Your task to perform on an android device: open app "Facebook Lite" (install if not already installed) Image 0: 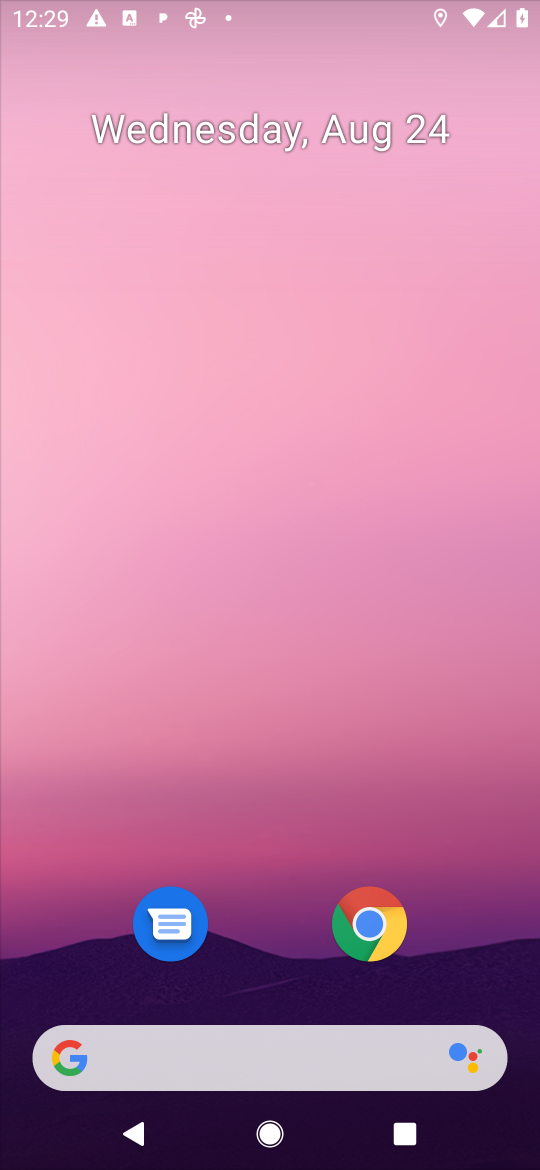
Step 0: drag from (447, 228) to (444, 84)
Your task to perform on an android device: open app "Facebook Lite" (install if not already installed) Image 1: 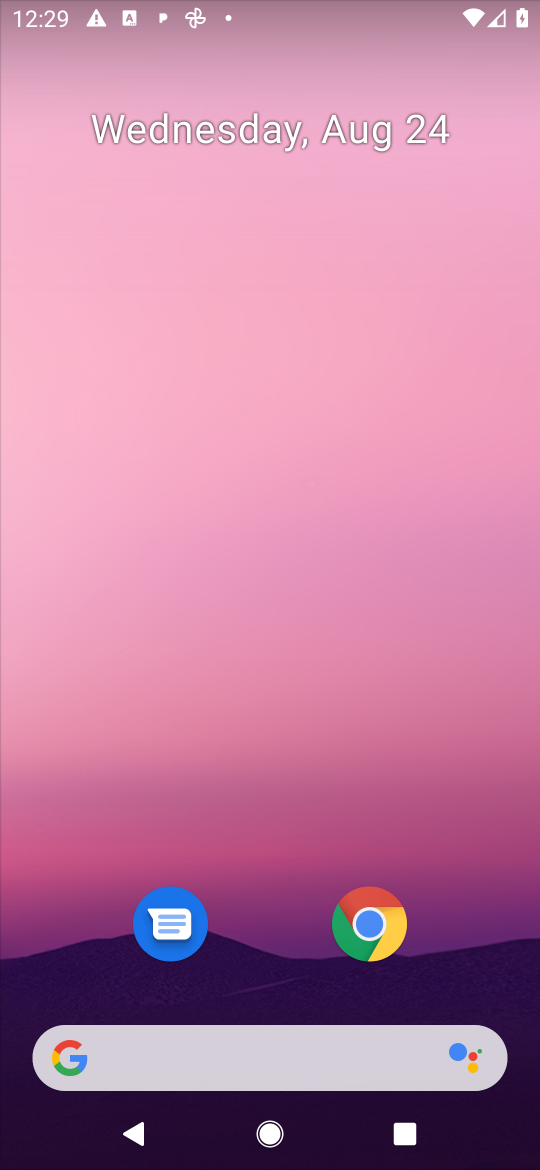
Step 1: drag from (467, 915) to (479, 100)
Your task to perform on an android device: open app "Facebook Lite" (install if not already installed) Image 2: 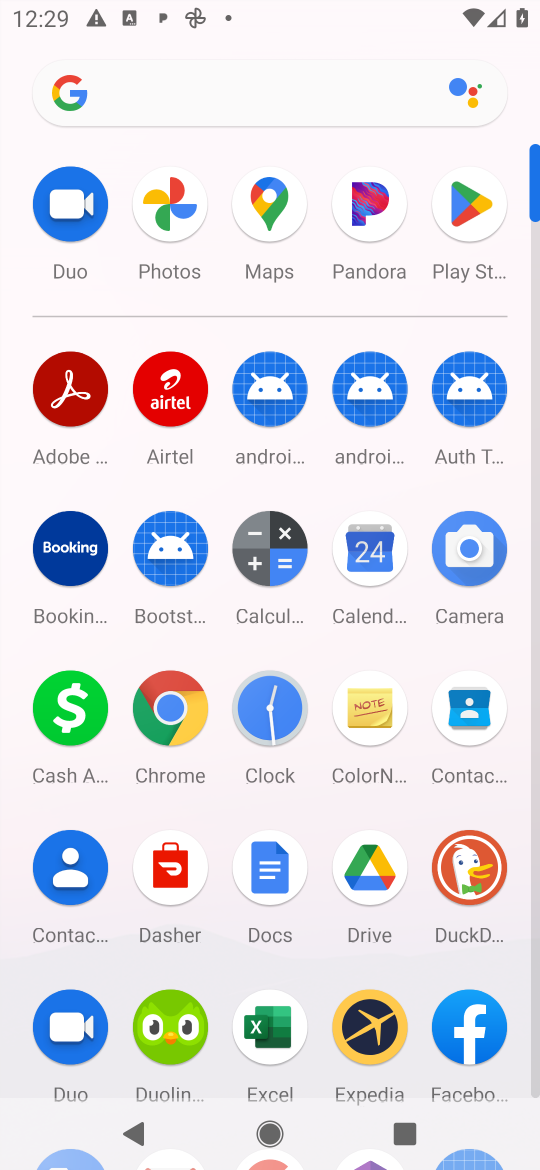
Step 2: click (468, 212)
Your task to perform on an android device: open app "Facebook Lite" (install if not already installed) Image 3: 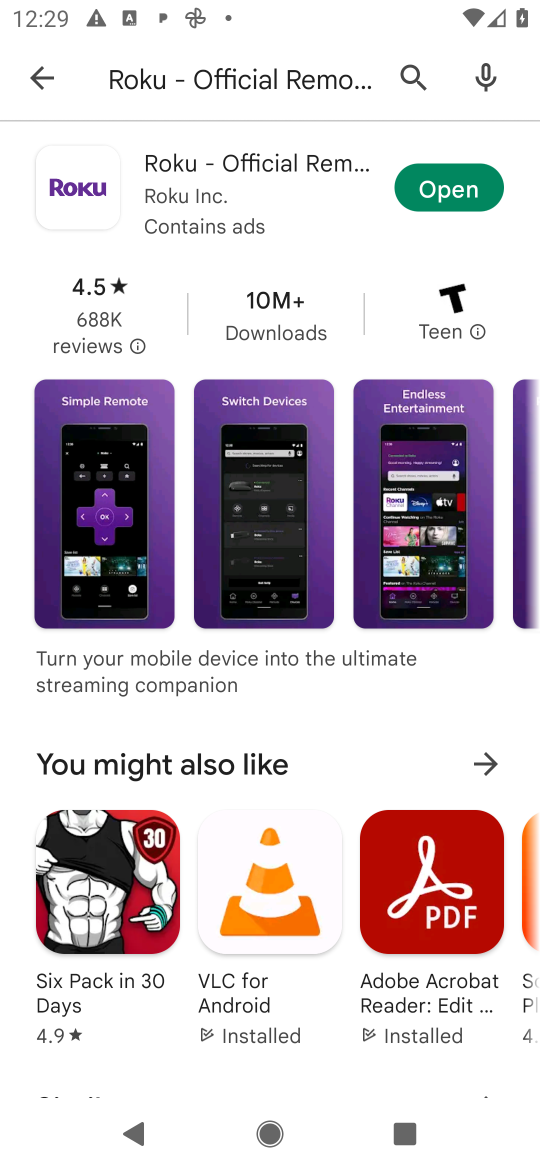
Step 3: press back button
Your task to perform on an android device: open app "Facebook Lite" (install if not already installed) Image 4: 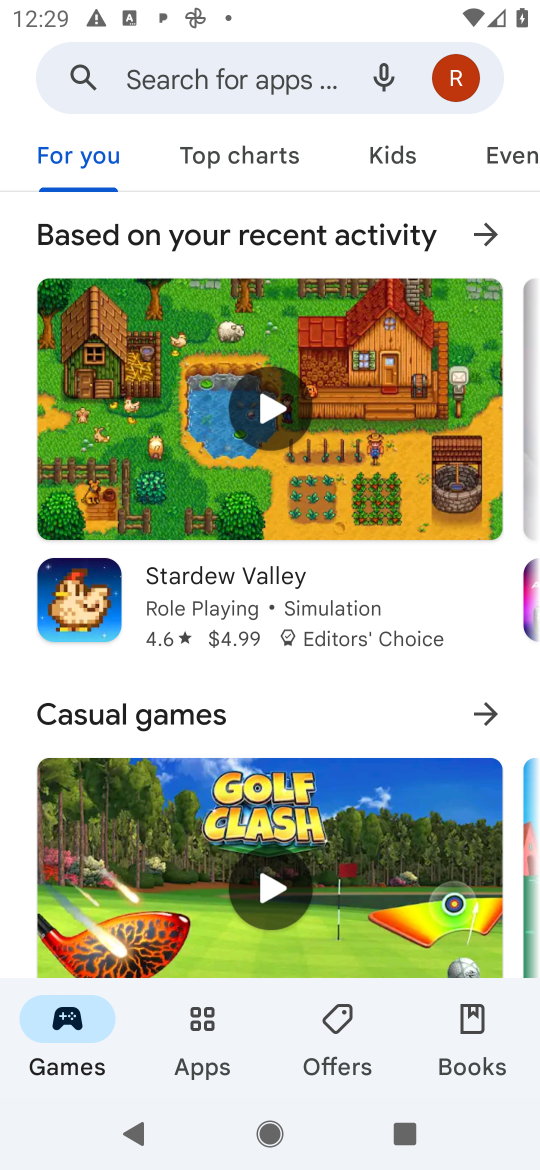
Step 4: click (251, 83)
Your task to perform on an android device: open app "Facebook Lite" (install if not already installed) Image 5: 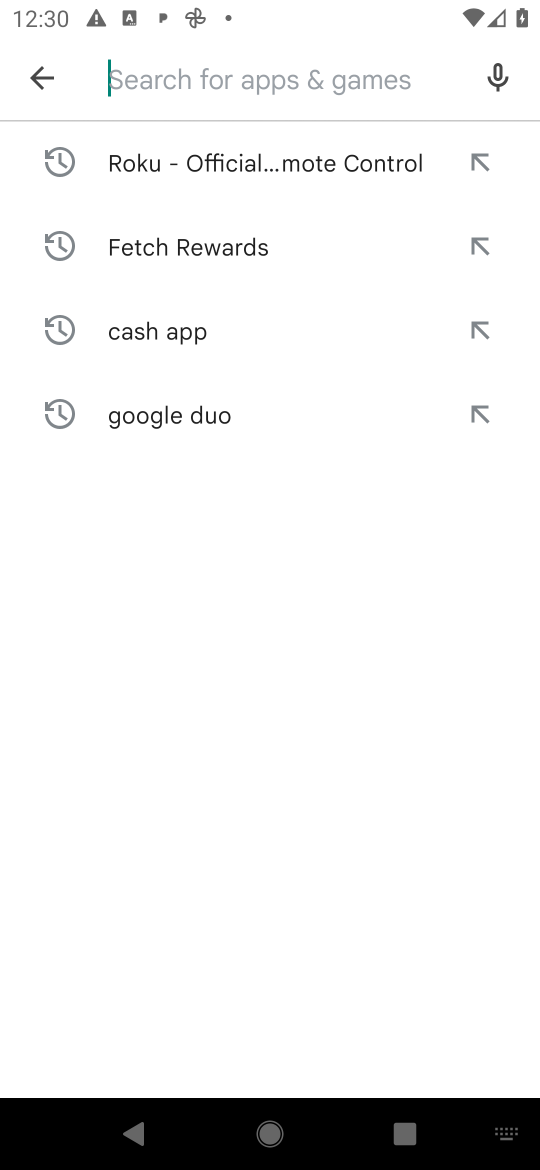
Step 5: type "facebook lite"
Your task to perform on an android device: open app "Facebook Lite" (install if not already installed) Image 6: 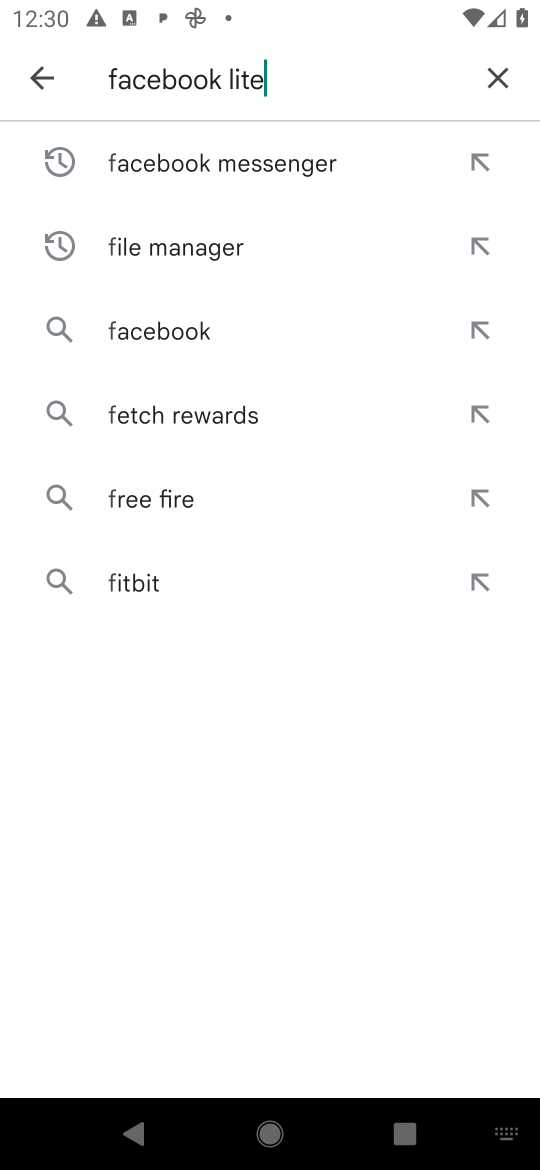
Step 6: press enter
Your task to perform on an android device: open app "Facebook Lite" (install if not already installed) Image 7: 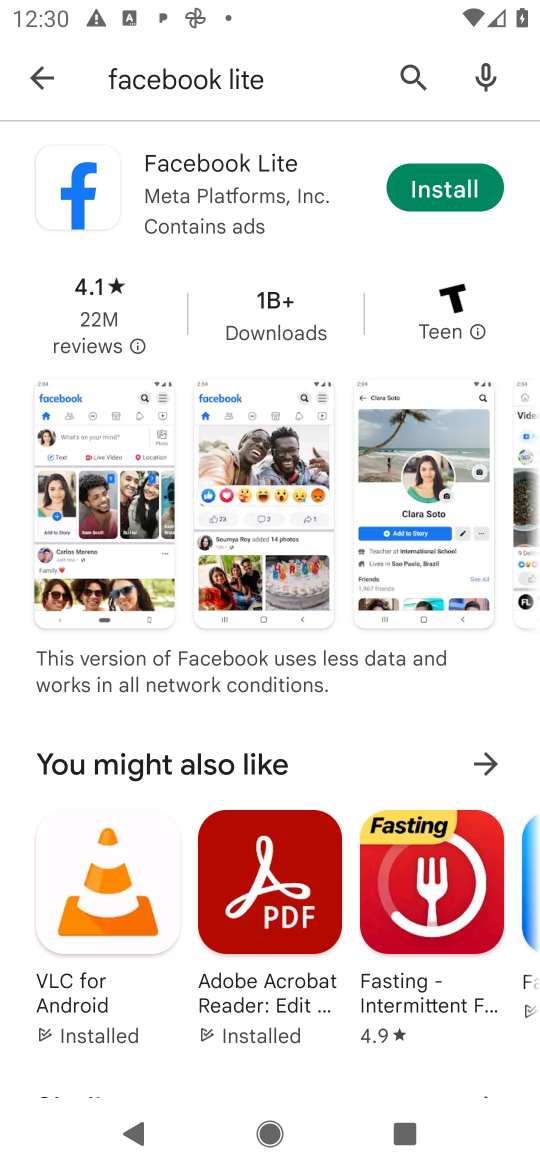
Step 7: click (452, 195)
Your task to perform on an android device: open app "Facebook Lite" (install if not already installed) Image 8: 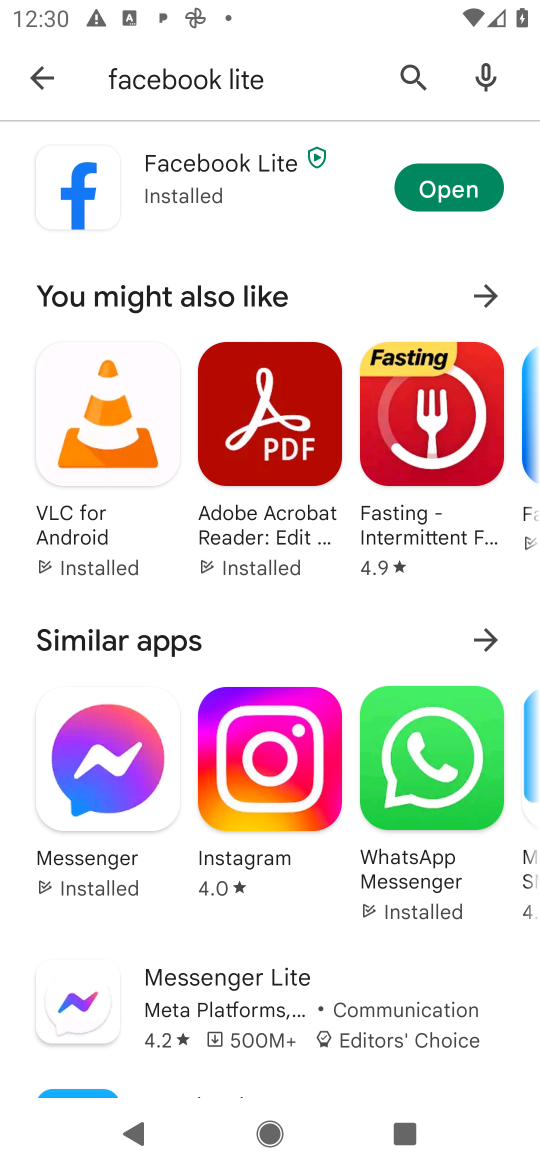
Step 8: click (461, 191)
Your task to perform on an android device: open app "Facebook Lite" (install if not already installed) Image 9: 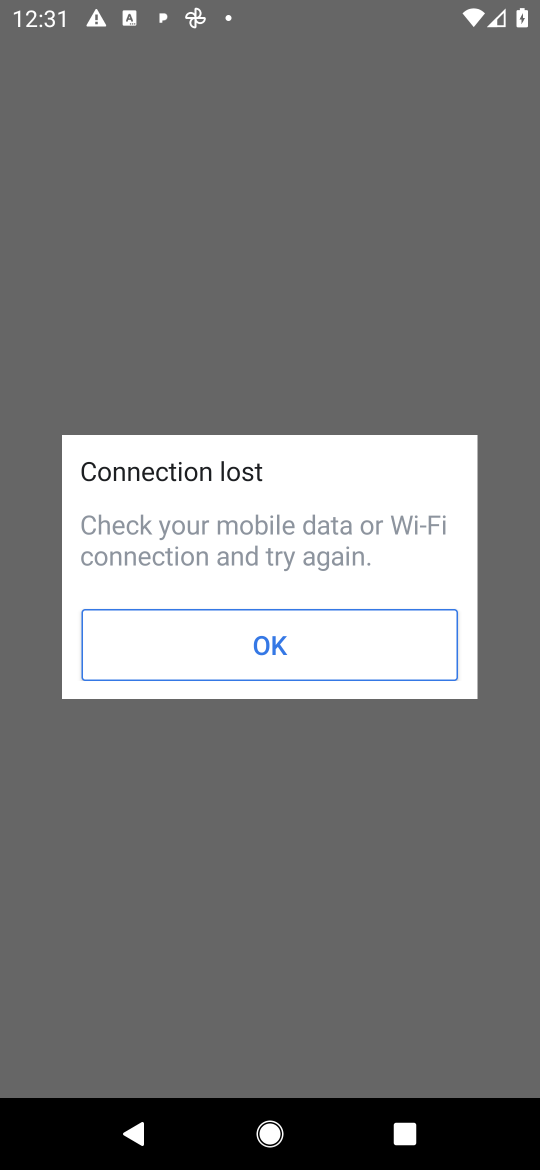
Step 9: task complete